Your task to perform on an android device: empty trash in the gmail app Image 0: 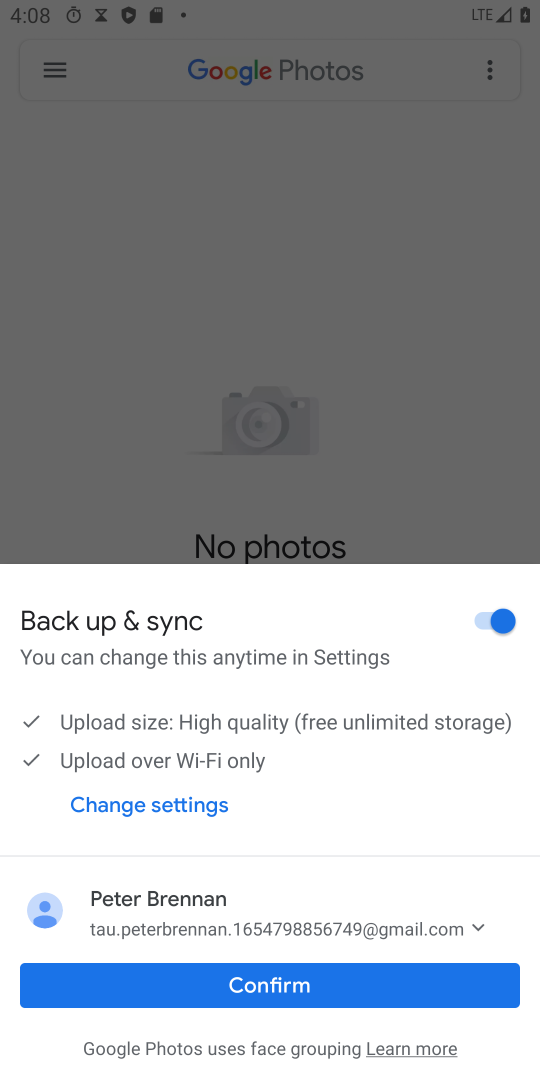
Step 0: press home button
Your task to perform on an android device: empty trash in the gmail app Image 1: 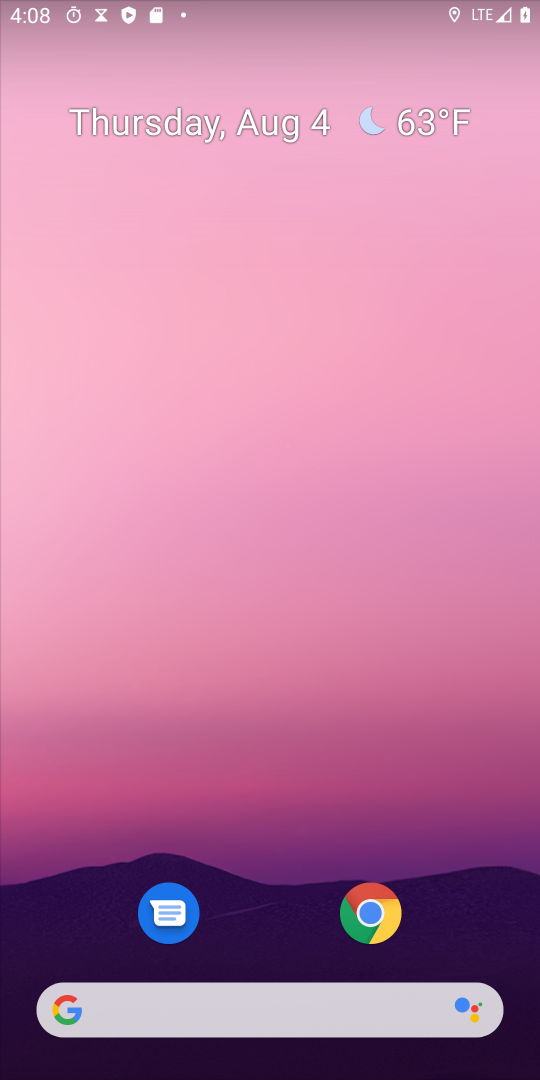
Step 1: drag from (471, 924) to (472, 129)
Your task to perform on an android device: empty trash in the gmail app Image 2: 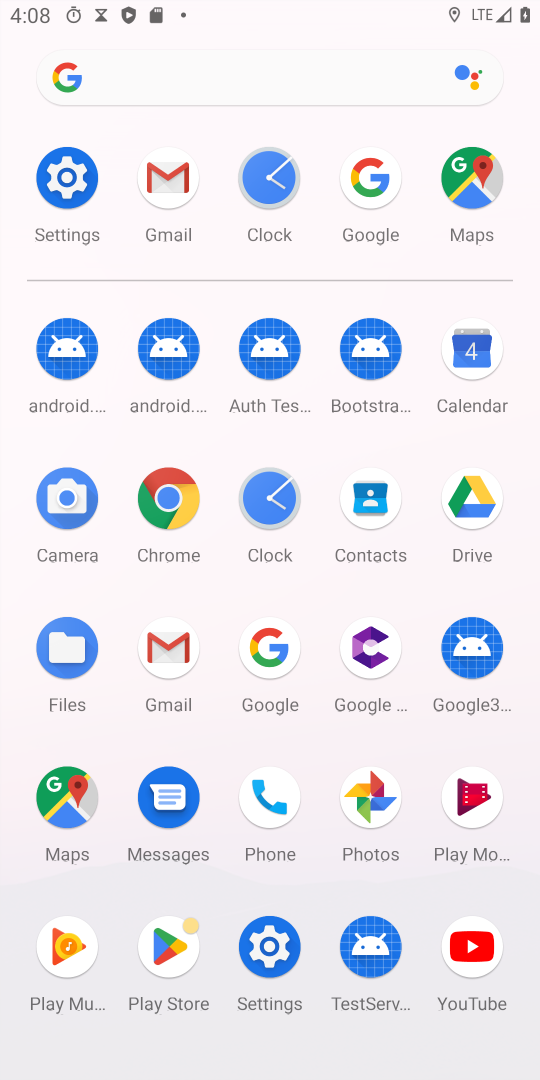
Step 2: click (173, 658)
Your task to perform on an android device: empty trash in the gmail app Image 3: 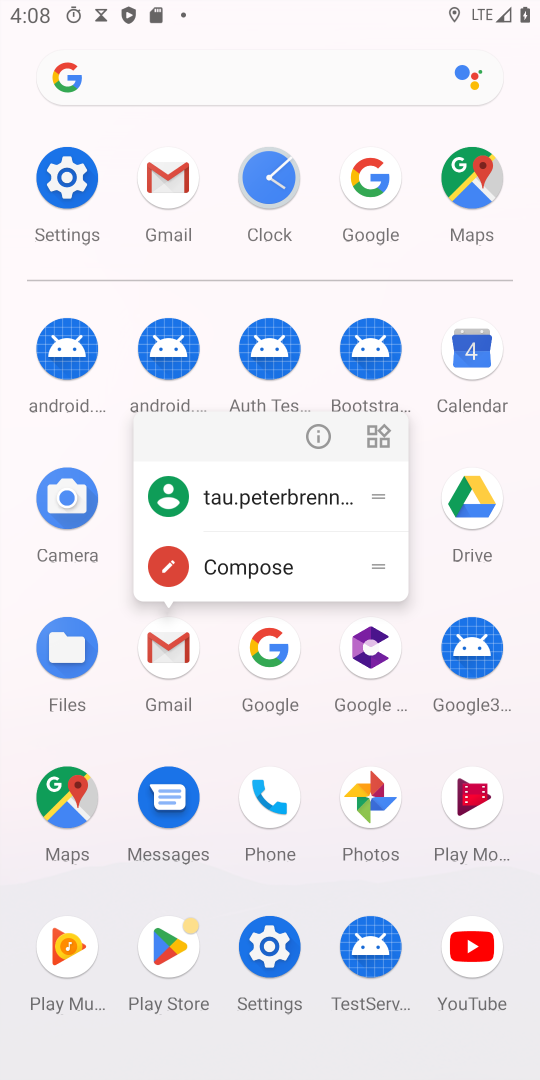
Step 3: click (173, 658)
Your task to perform on an android device: empty trash in the gmail app Image 4: 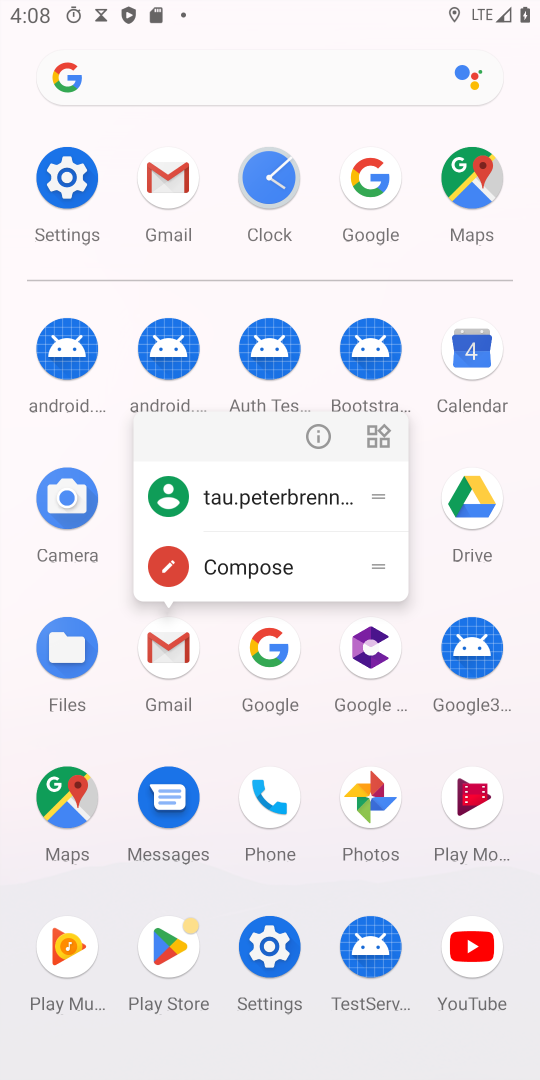
Step 4: click (171, 651)
Your task to perform on an android device: empty trash in the gmail app Image 5: 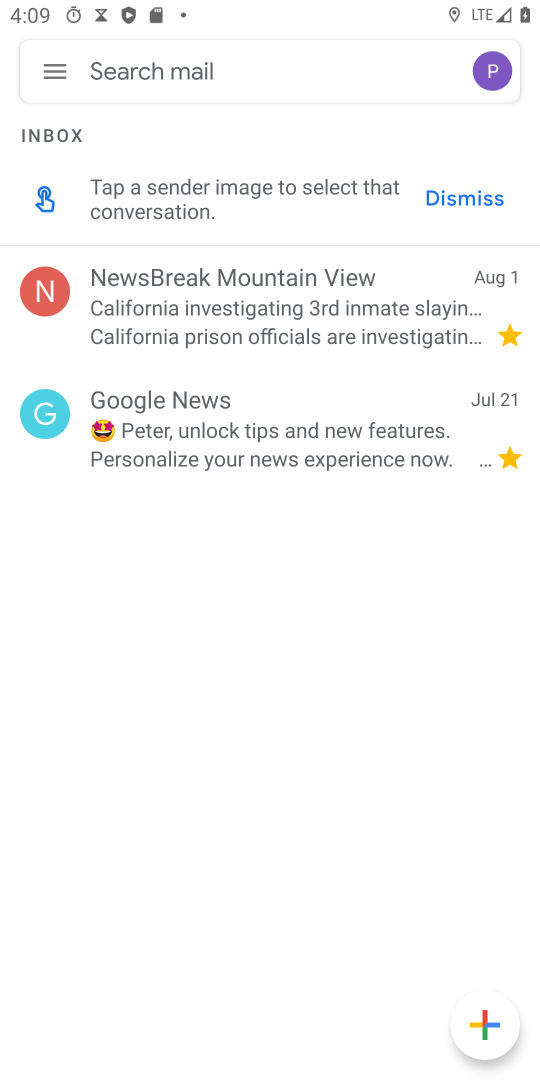
Step 5: click (42, 73)
Your task to perform on an android device: empty trash in the gmail app Image 6: 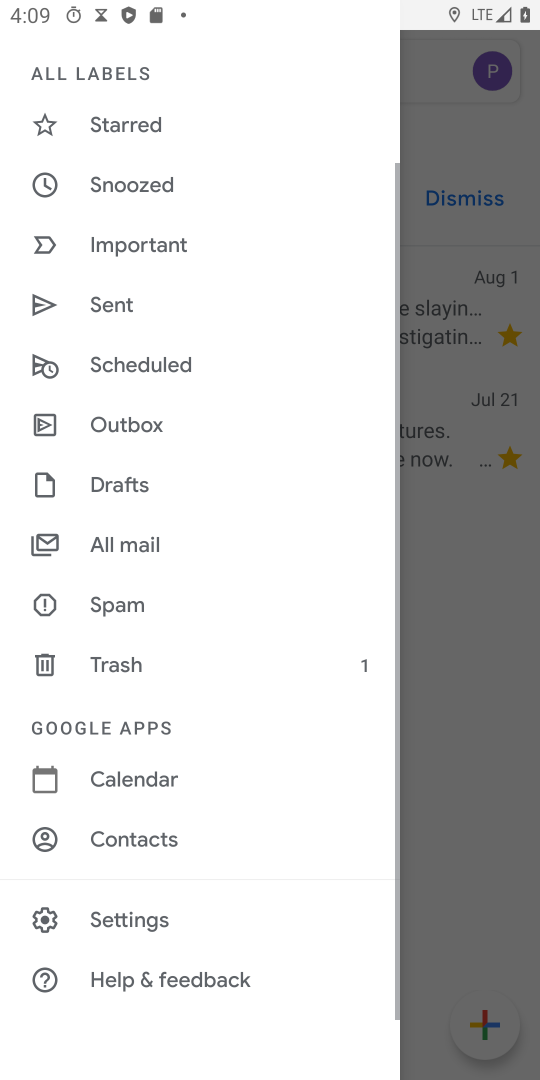
Step 6: drag from (168, 908) to (183, 630)
Your task to perform on an android device: empty trash in the gmail app Image 7: 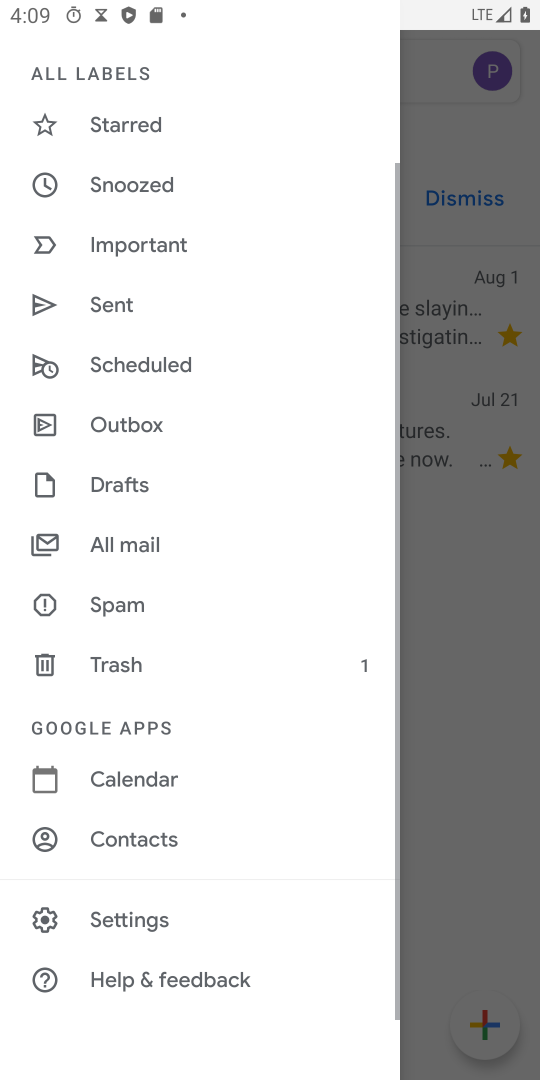
Step 7: click (140, 667)
Your task to perform on an android device: empty trash in the gmail app Image 8: 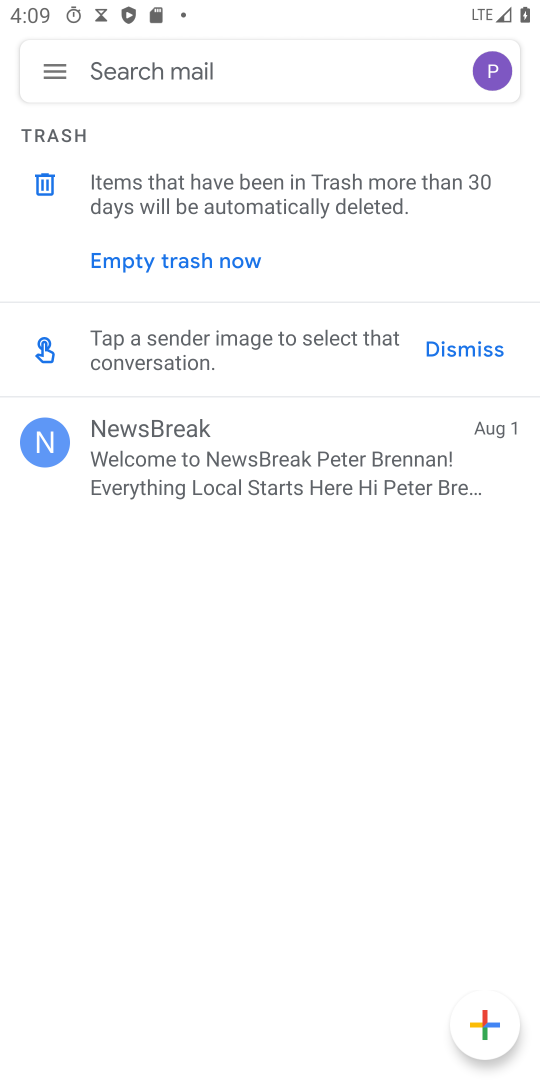
Step 8: click (203, 256)
Your task to perform on an android device: empty trash in the gmail app Image 9: 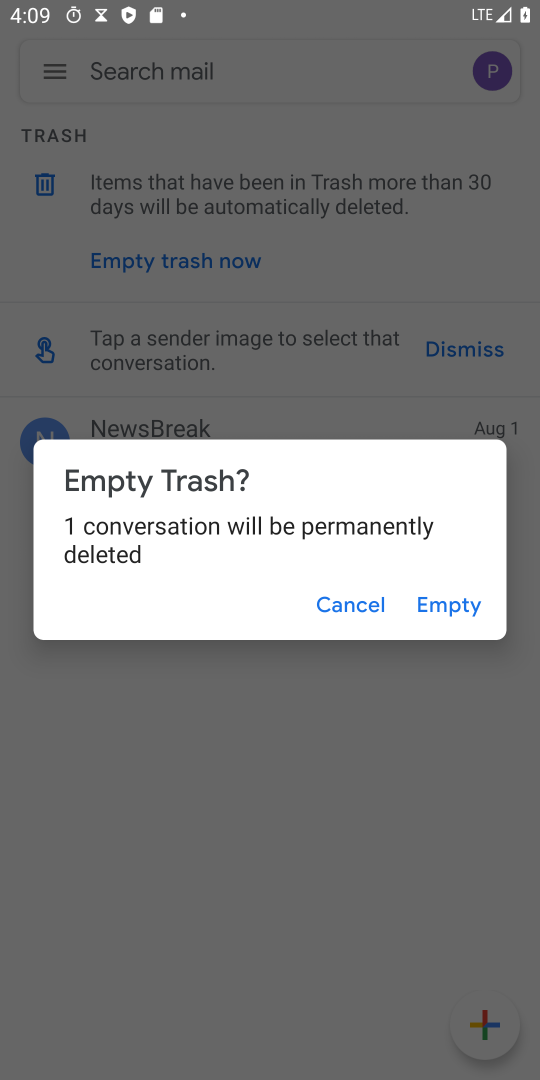
Step 9: click (459, 609)
Your task to perform on an android device: empty trash in the gmail app Image 10: 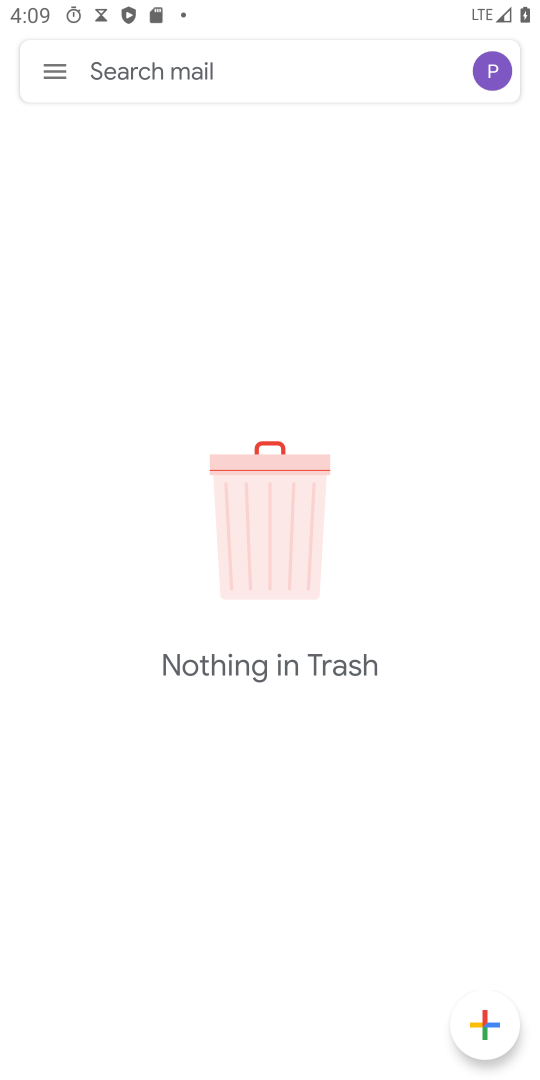
Step 10: task complete